Your task to perform on an android device: change the clock display to analog Image 0: 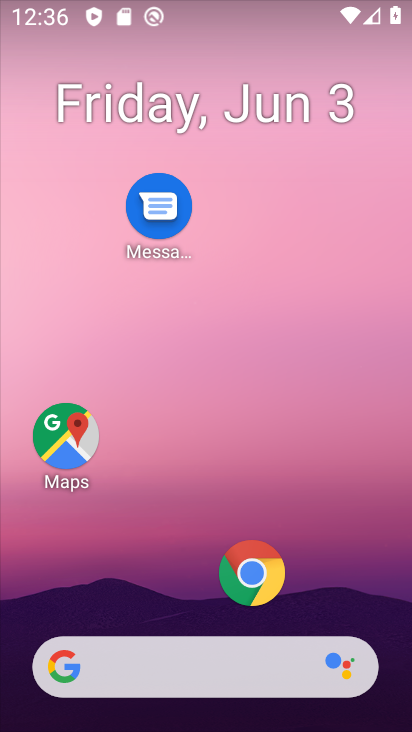
Step 0: drag from (137, 718) to (180, 158)
Your task to perform on an android device: change the clock display to analog Image 1: 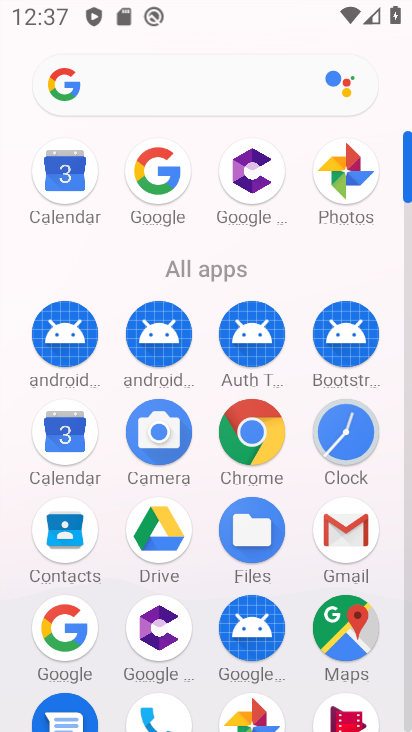
Step 1: click (339, 465)
Your task to perform on an android device: change the clock display to analog Image 2: 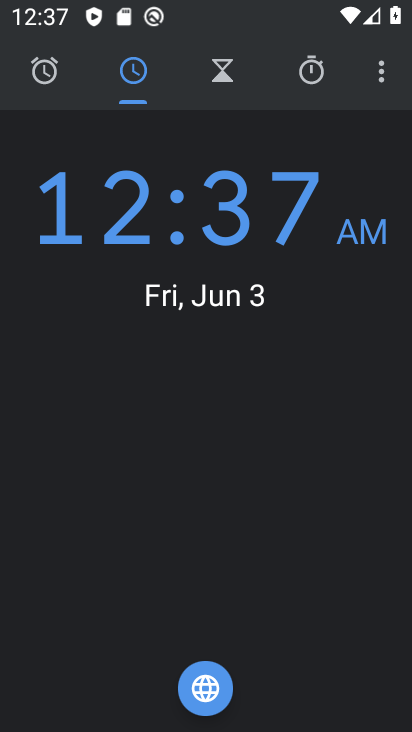
Step 2: click (381, 71)
Your task to perform on an android device: change the clock display to analog Image 3: 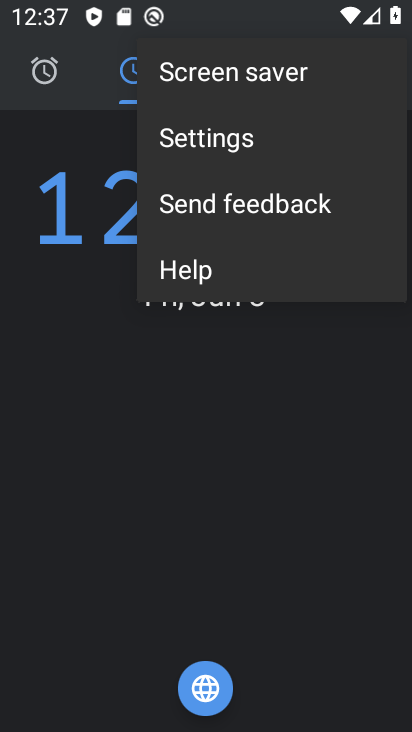
Step 3: click (229, 147)
Your task to perform on an android device: change the clock display to analog Image 4: 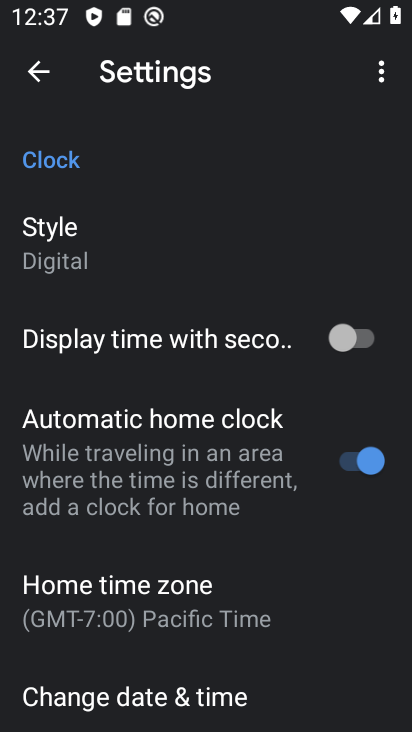
Step 4: click (177, 234)
Your task to perform on an android device: change the clock display to analog Image 5: 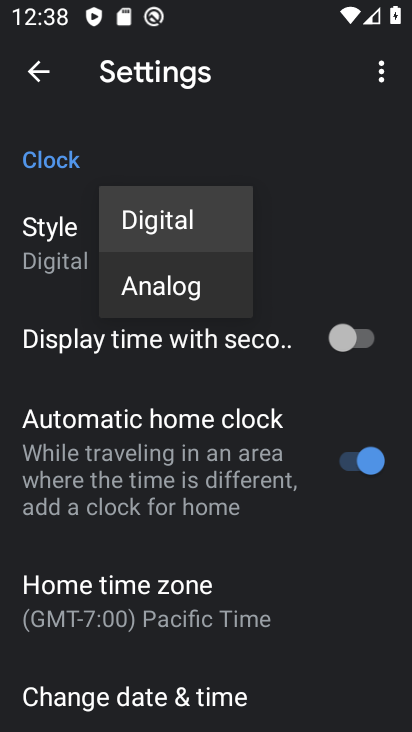
Step 5: click (200, 283)
Your task to perform on an android device: change the clock display to analog Image 6: 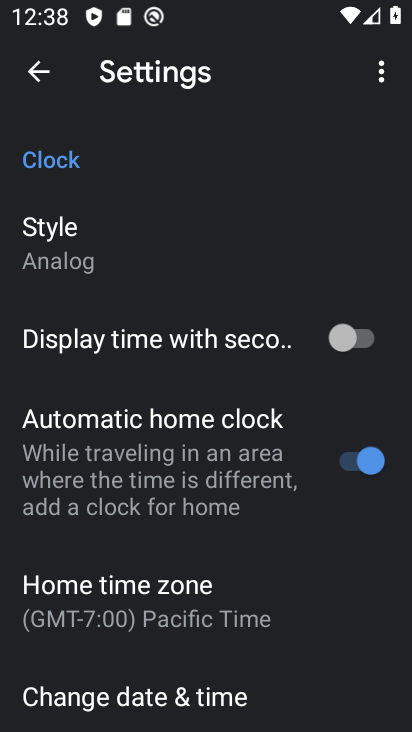
Step 6: task complete